Your task to perform on an android device: Search for vegetarian restaurants on Maps Image 0: 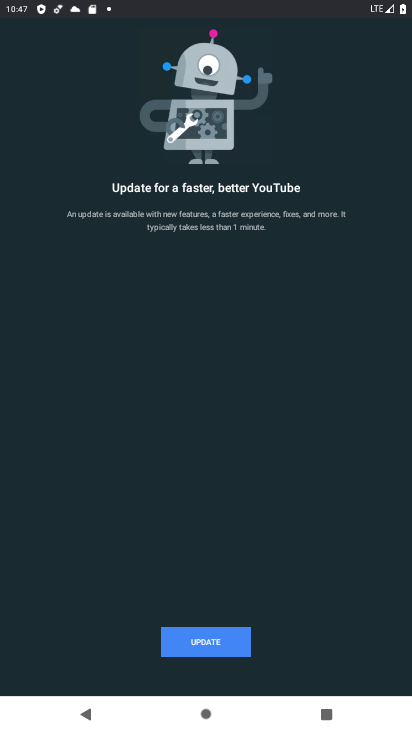
Step 0: press home button
Your task to perform on an android device: Search for vegetarian restaurants on Maps Image 1: 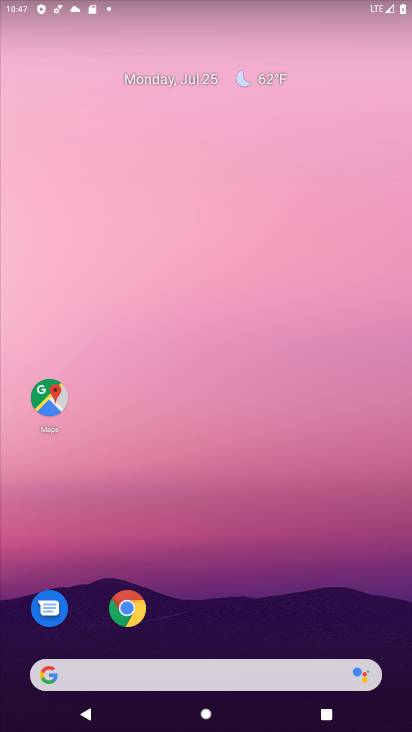
Step 1: click (44, 379)
Your task to perform on an android device: Search for vegetarian restaurants on Maps Image 2: 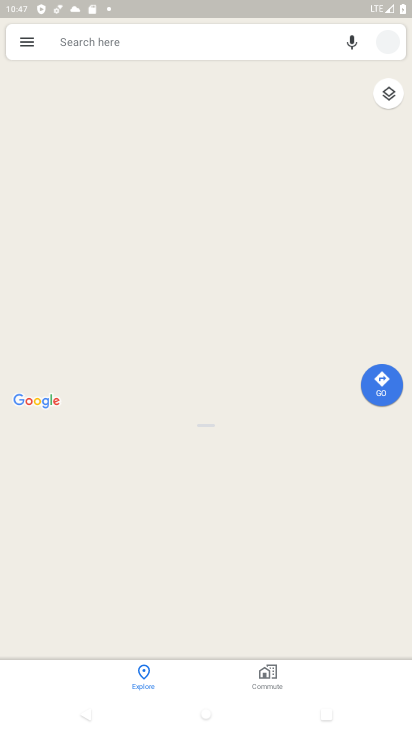
Step 2: click (173, 32)
Your task to perform on an android device: Search for vegetarian restaurants on Maps Image 3: 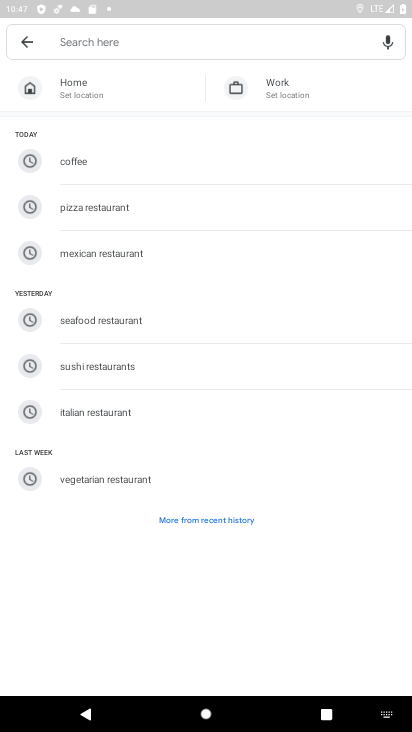
Step 3: type "vegetarian restaurants"
Your task to perform on an android device: Search for vegetarian restaurants on Maps Image 4: 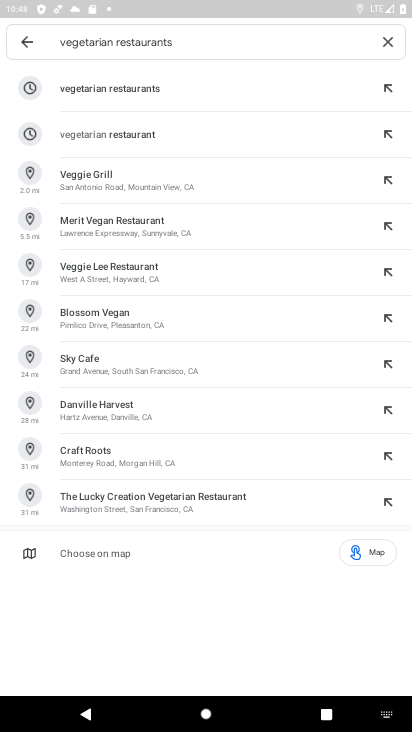
Step 4: click (126, 79)
Your task to perform on an android device: Search for vegetarian restaurants on Maps Image 5: 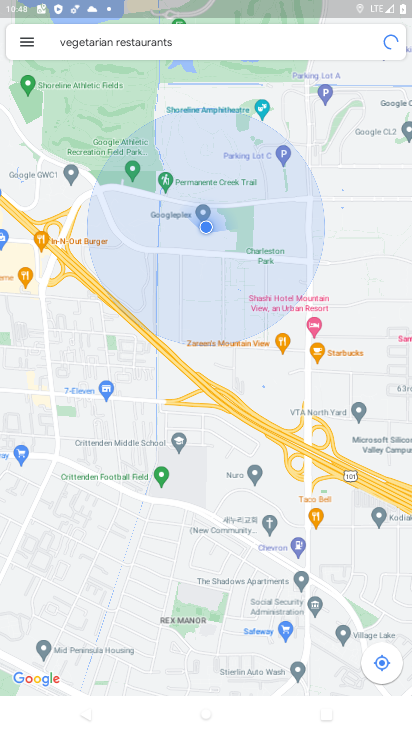
Step 5: task complete